Your task to perform on an android device: check battery use Image 0: 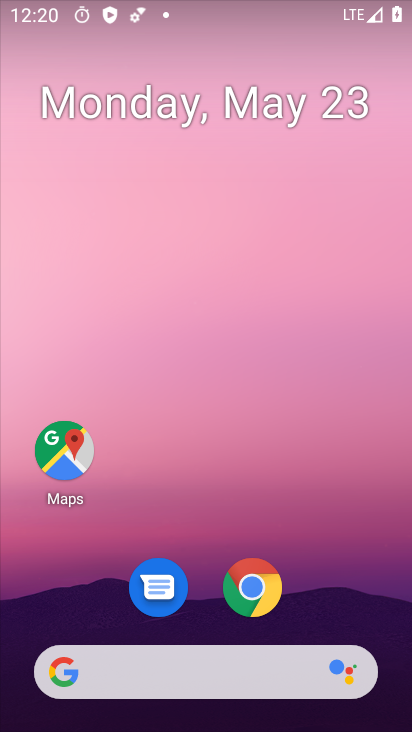
Step 0: drag from (183, 624) to (182, 87)
Your task to perform on an android device: check battery use Image 1: 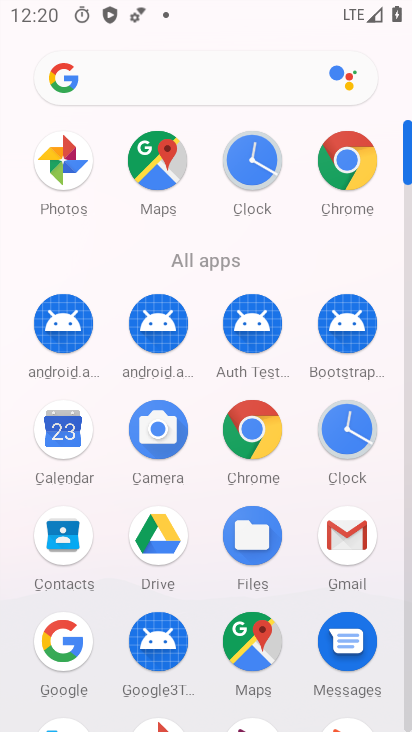
Step 1: drag from (205, 619) to (255, 73)
Your task to perform on an android device: check battery use Image 2: 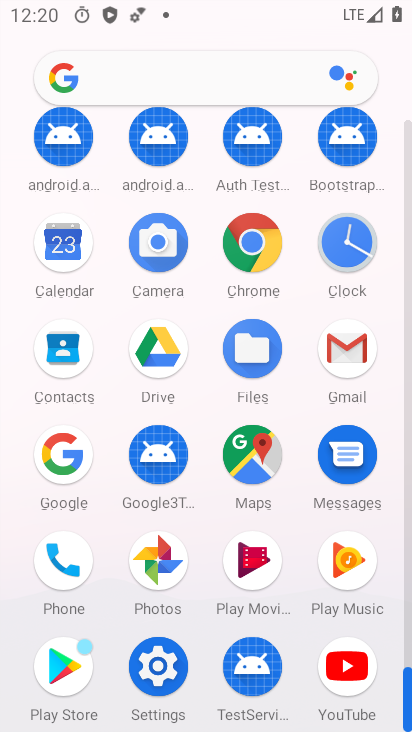
Step 2: click (169, 669)
Your task to perform on an android device: check battery use Image 3: 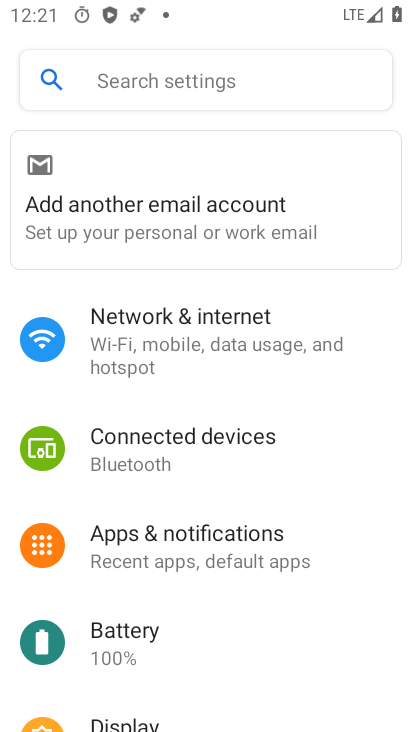
Step 3: click (134, 632)
Your task to perform on an android device: check battery use Image 4: 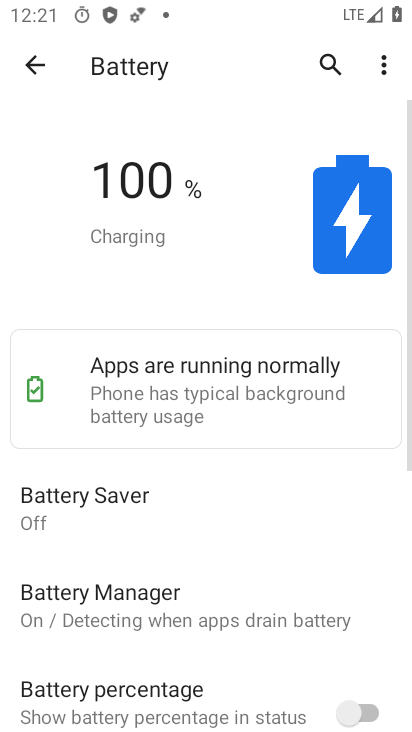
Step 4: task complete